Your task to perform on an android device: snooze an email in the gmail app Image 0: 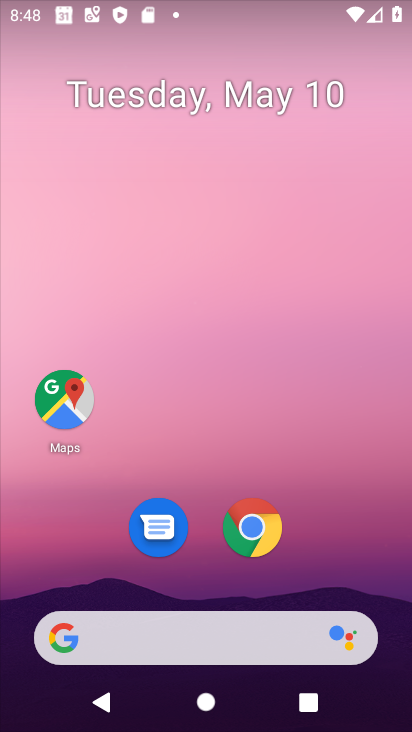
Step 0: drag from (156, 601) to (257, 68)
Your task to perform on an android device: snooze an email in the gmail app Image 1: 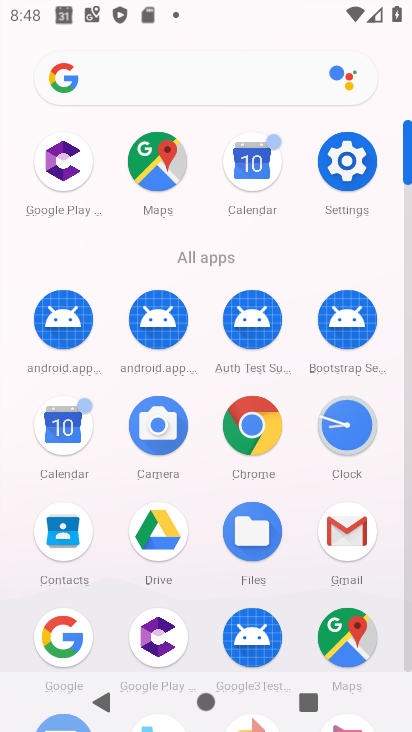
Step 1: click (336, 521)
Your task to perform on an android device: snooze an email in the gmail app Image 2: 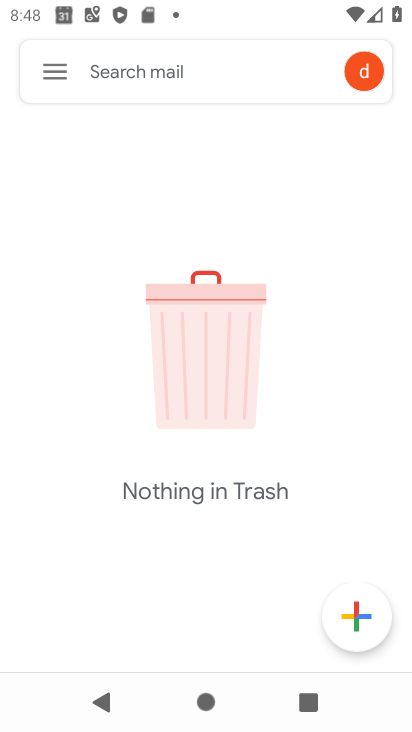
Step 2: click (77, 69)
Your task to perform on an android device: snooze an email in the gmail app Image 3: 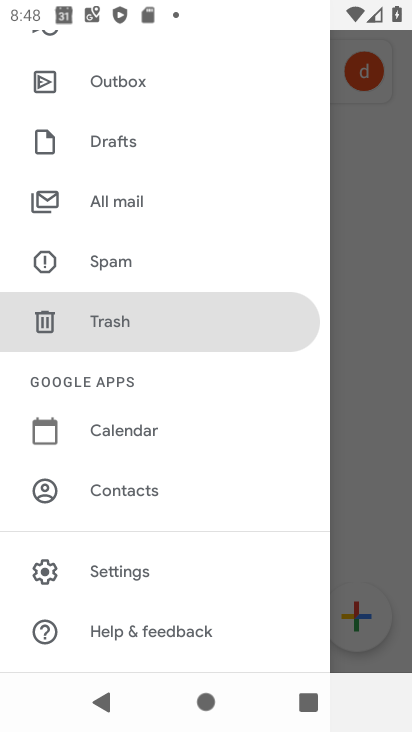
Step 3: drag from (207, 276) to (181, 450)
Your task to perform on an android device: snooze an email in the gmail app Image 4: 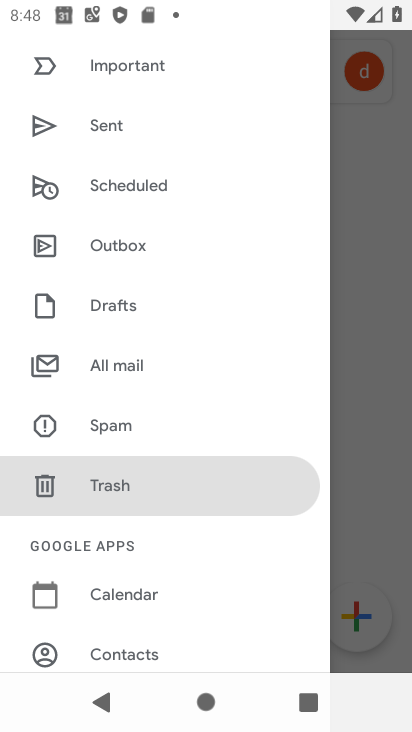
Step 4: click (160, 379)
Your task to perform on an android device: snooze an email in the gmail app Image 5: 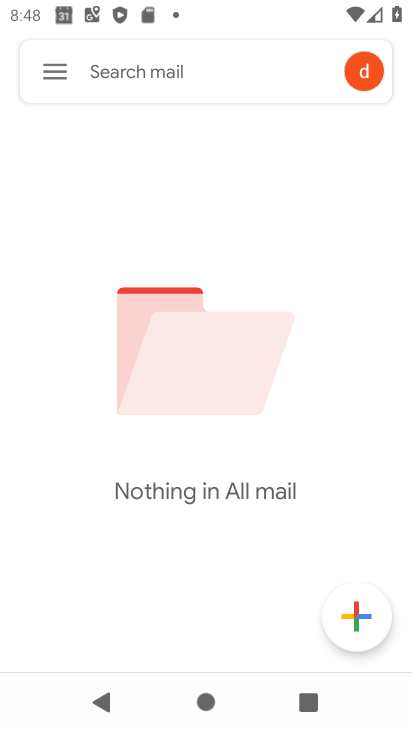
Step 5: task complete